Your task to perform on an android device: open app "Lyft - Rideshare, Bikes, Scooters & Transit" (install if not already installed) Image 0: 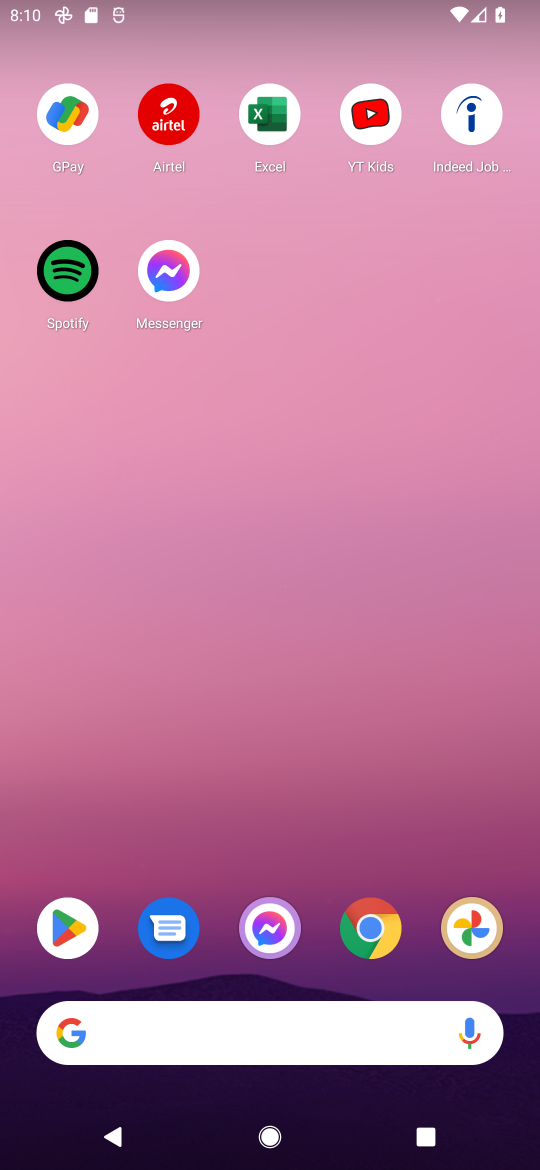
Step 0: click (107, 928)
Your task to perform on an android device: open app "Lyft - Rideshare, Bikes, Scooters & Transit" (install if not already installed) Image 1: 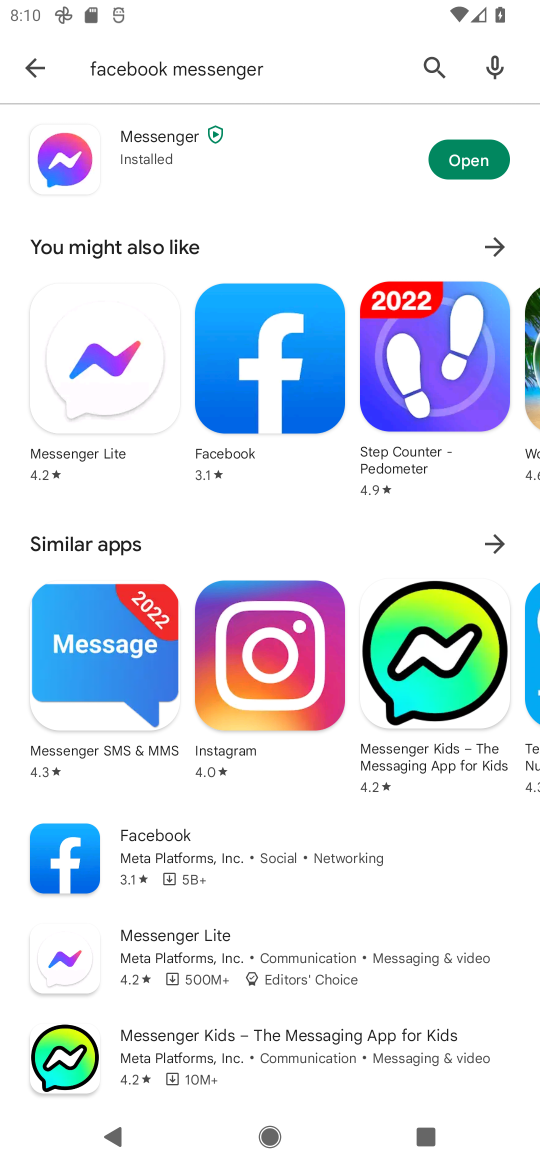
Step 1: click (436, 71)
Your task to perform on an android device: open app "Lyft - Rideshare, Bikes, Scooters & Transit" (install if not already installed) Image 2: 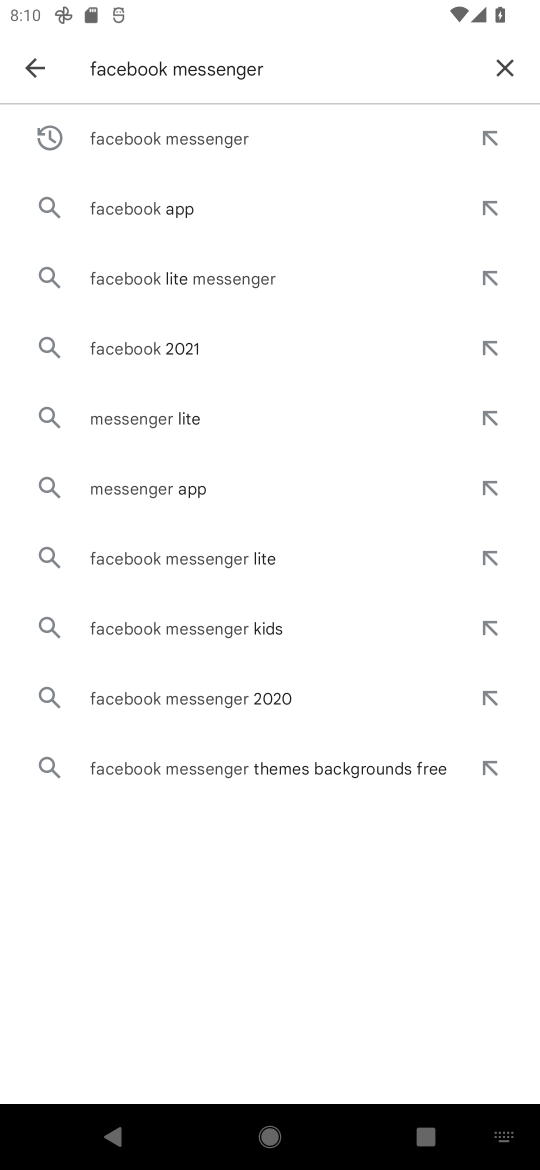
Step 2: click (500, 70)
Your task to perform on an android device: open app "Lyft - Rideshare, Bikes, Scooters & Transit" (install if not already installed) Image 3: 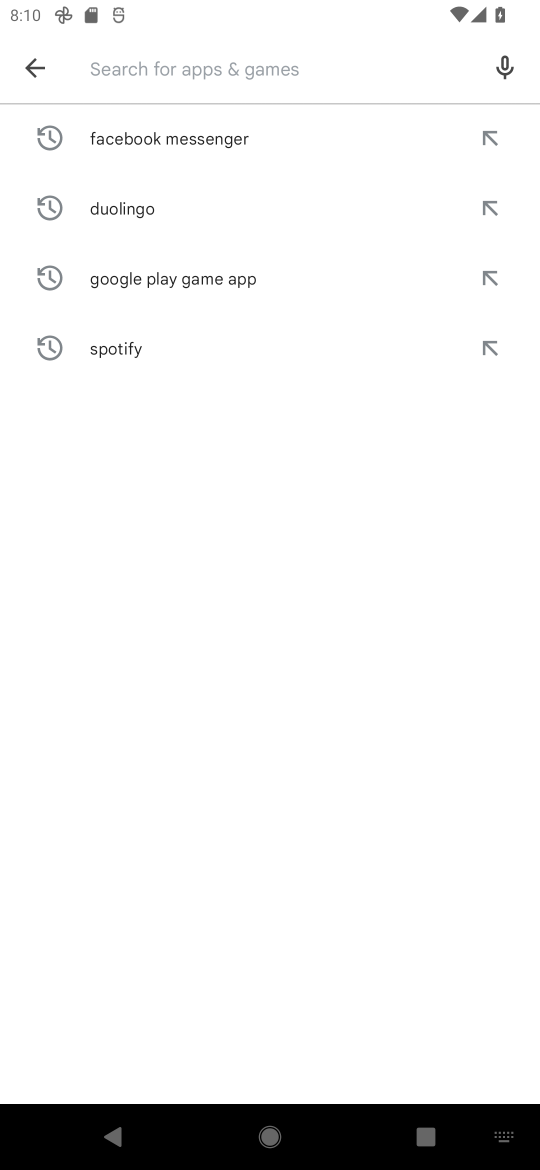
Step 3: type "lyft"
Your task to perform on an android device: open app "Lyft - Rideshare, Bikes, Scooters & Transit" (install if not already installed) Image 4: 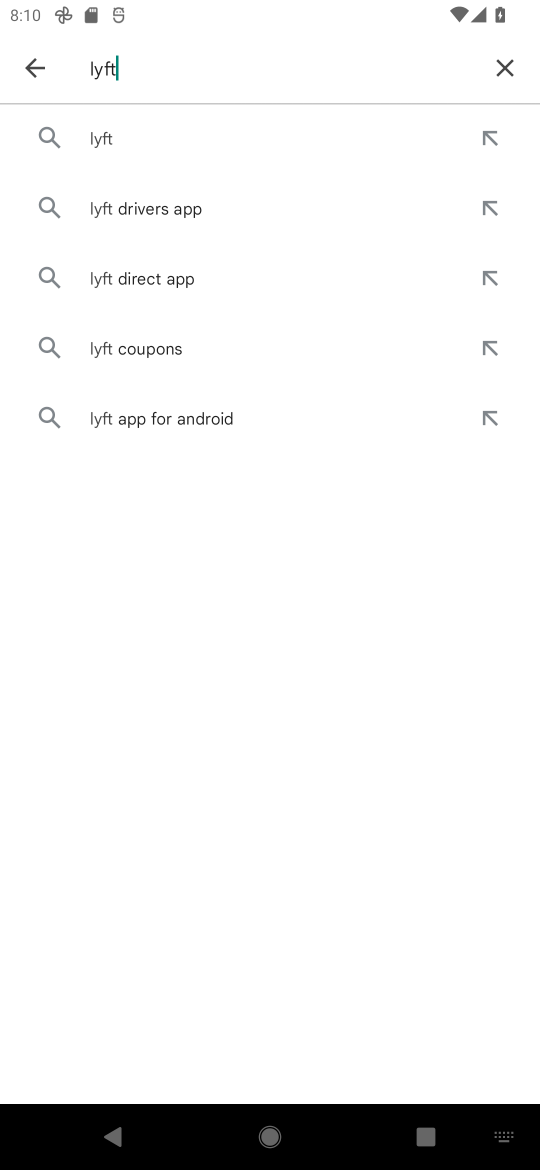
Step 4: click (145, 149)
Your task to perform on an android device: open app "Lyft - Rideshare, Bikes, Scooters & Transit" (install if not already installed) Image 5: 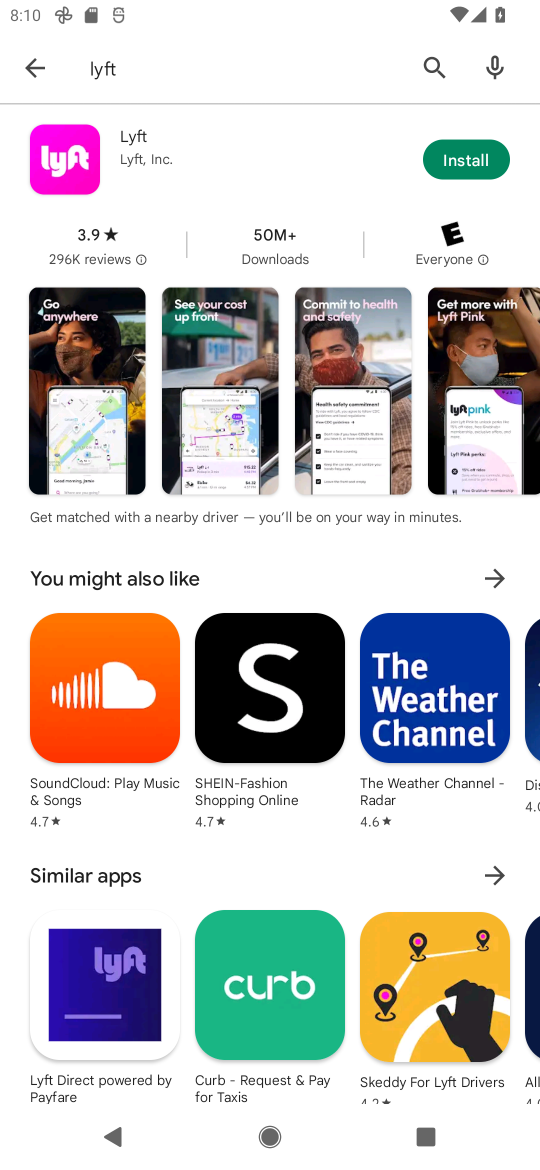
Step 5: click (485, 164)
Your task to perform on an android device: open app "Lyft - Rideshare, Bikes, Scooters & Transit" (install if not already installed) Image 6: 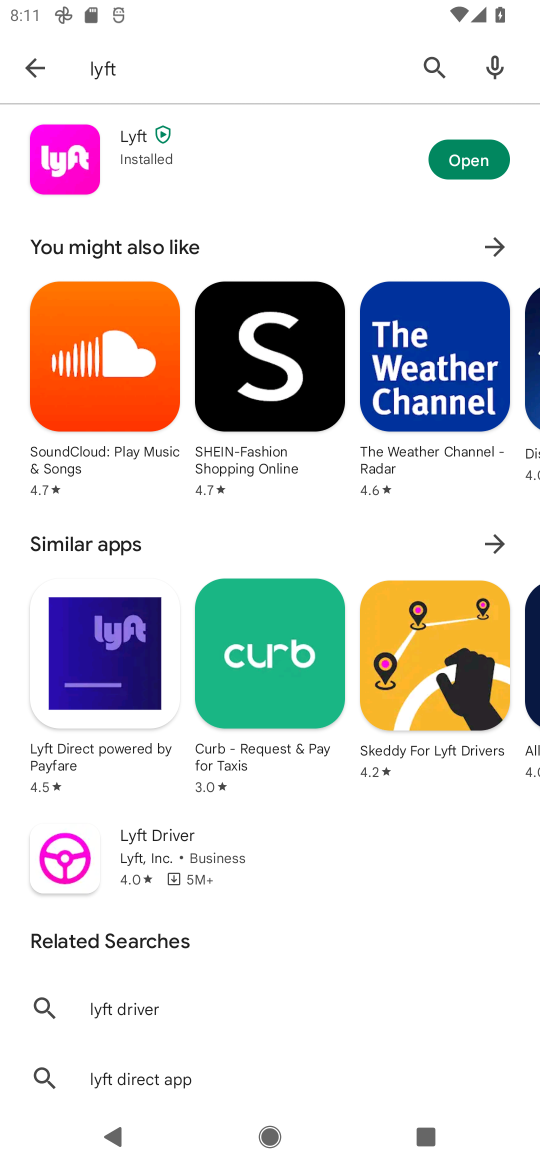
Step 6: click (476, 160)
Your task to perform on an android device: open app "Lyft - Rideshare, Bikes, Scooters & Transit" (install if not already installed) Image 7: 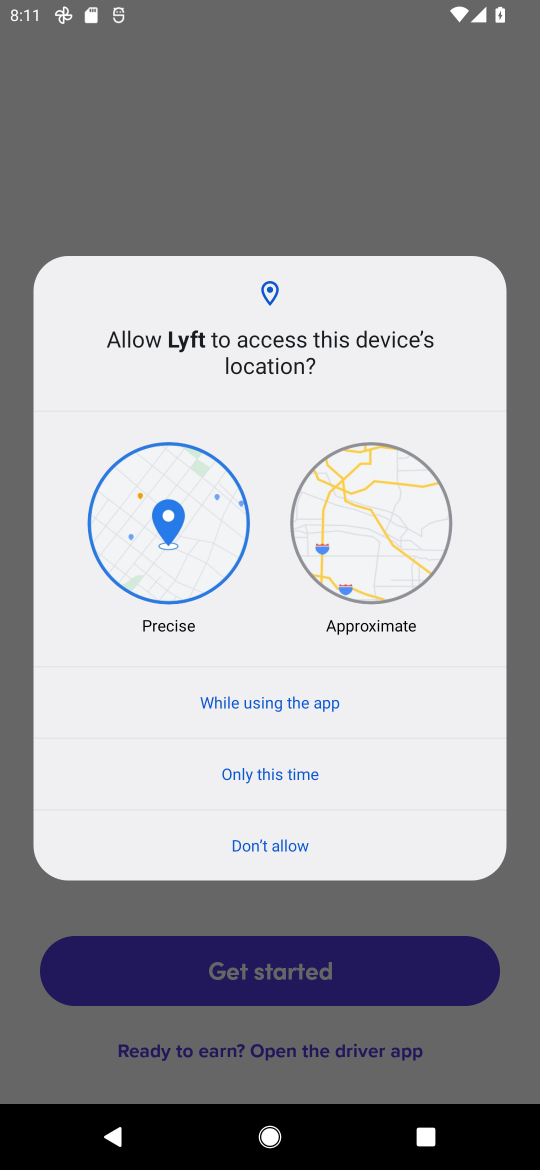
Step 7: task complete